Your task to perform on an android device: Go to internet settings Image 0: 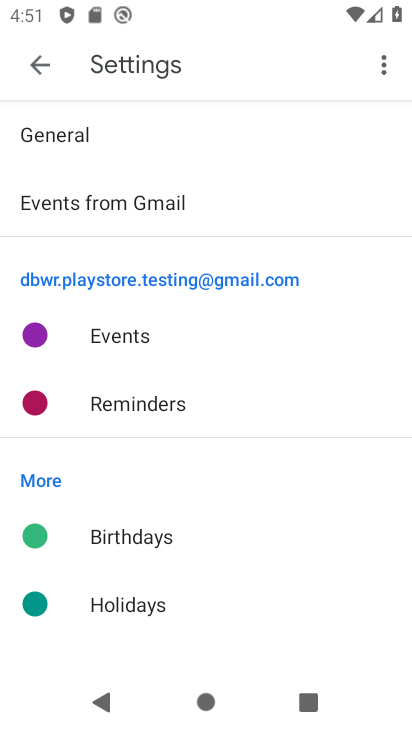
Step 0: press home button
Your task to perform on an android device: Go to internet settings Image 1: 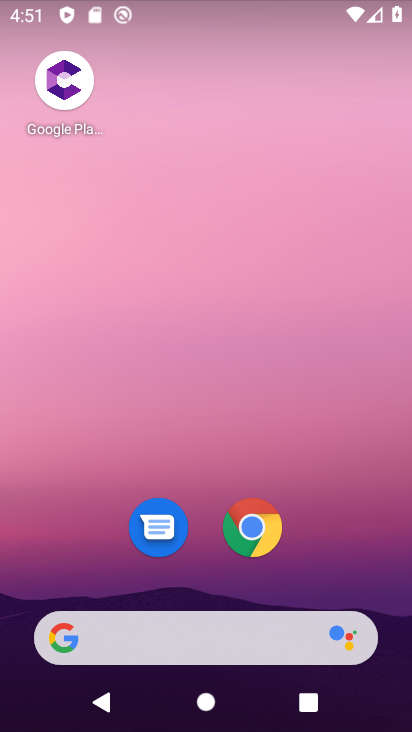
Step 1: drag from (360, 569) to (322, 148)
Your task to perform on an android device: Go to internet settings Image 2: 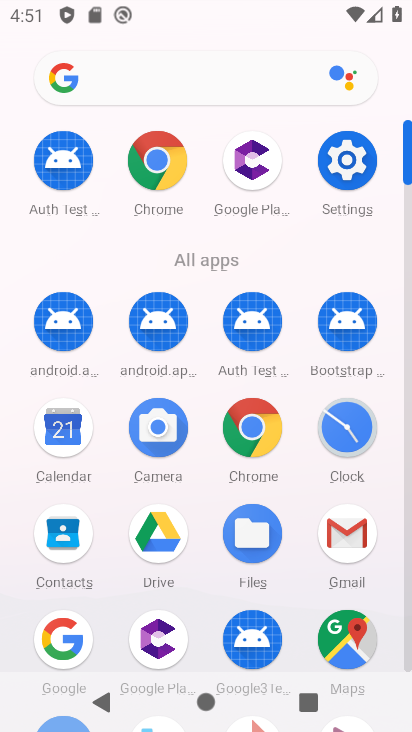
Step 2: click (335, 170)
Your task to perform on an android device: Go to internet settings Image 3: 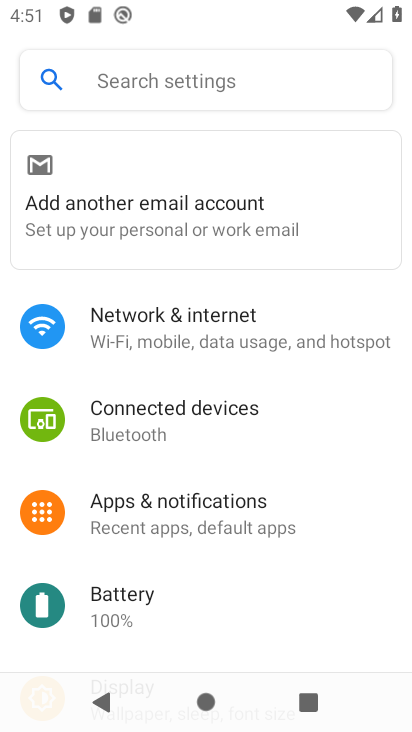
Step 3: click (159, 330)
Your task to perform on an android device: Go to internet settings Image 4: 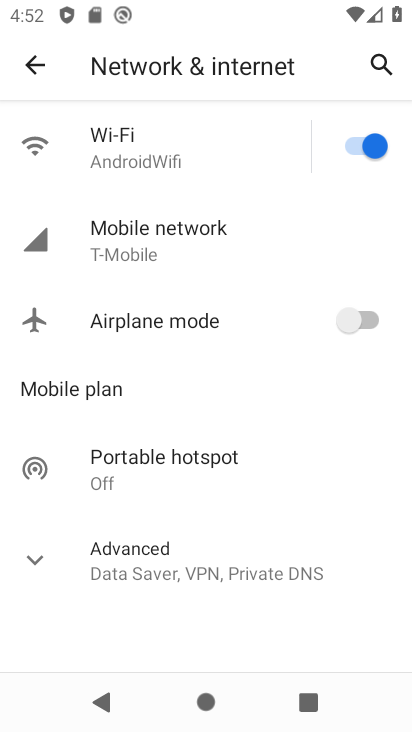
Step 4: task complete